Your task to perform on an android device: Go to notification settings Image 0: 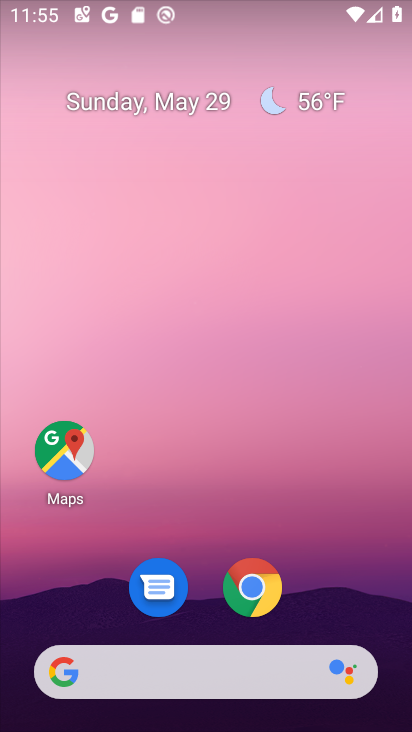
Step 0: drag from (387, 614) to (287, 195)
Your task to perform on an android device: Go to notification settings Image 1: 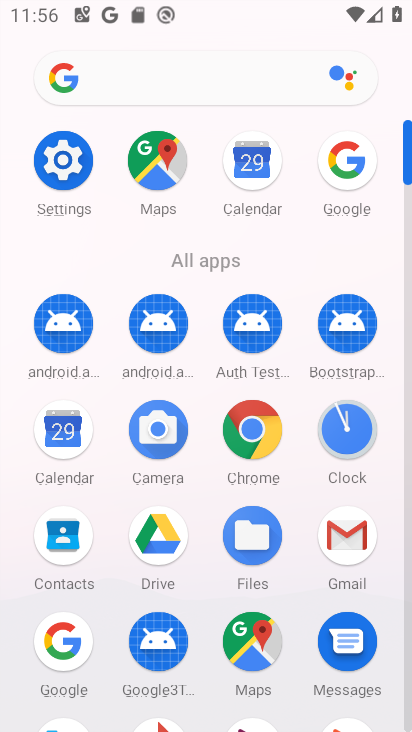
Step 1: click (70, 171)
Your task to perform on an android device: Go to notification settings Image 2: 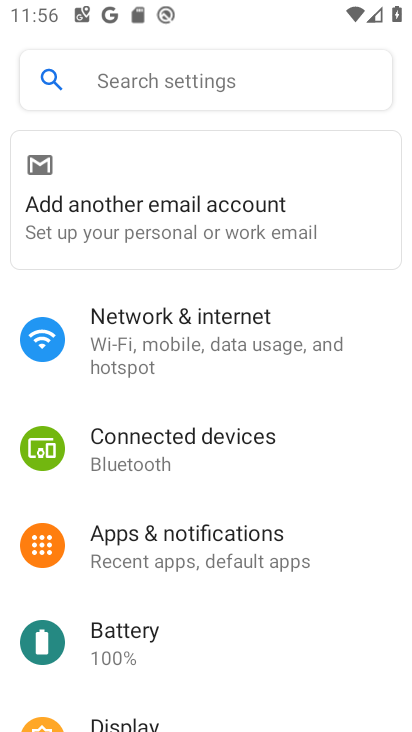
Step 2: click (171, 344)
Your task to perform on an android device: Go to notification settings Image 3: 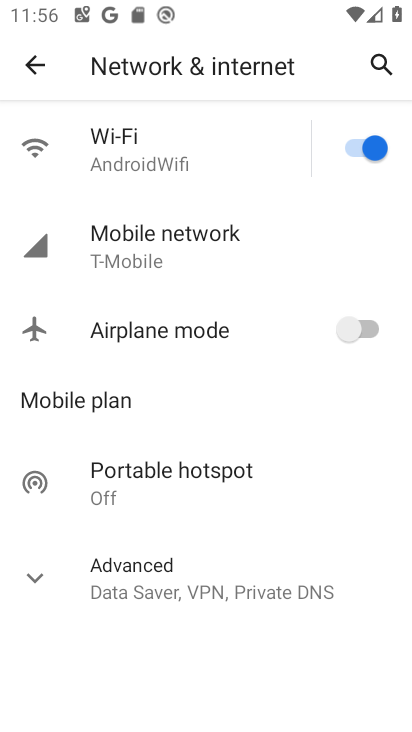
Step 3: task complete